Your task to perform on an android device: Open accessibility settings Image 0: 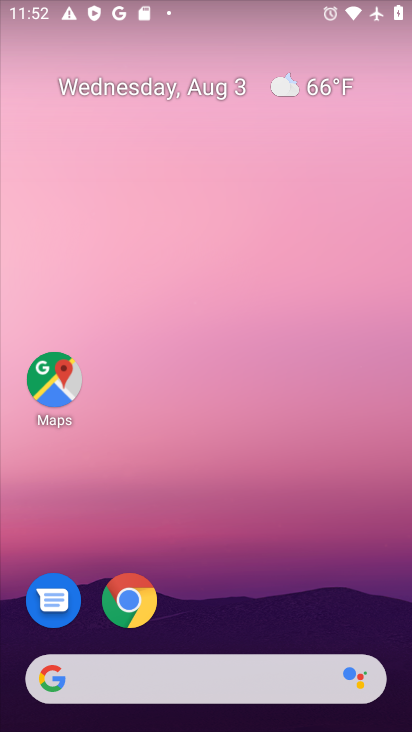
Step 0: drag from (237, 628) to (123, 36)
Your task to perform on an android device: Open accessibility settings Image 1: 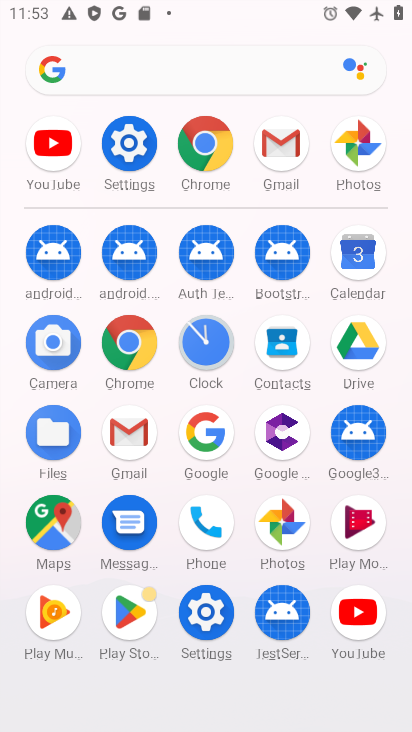
Step 1: click (211, 632)
Your task to perform on an android device: Open accessibility settings Image 2: 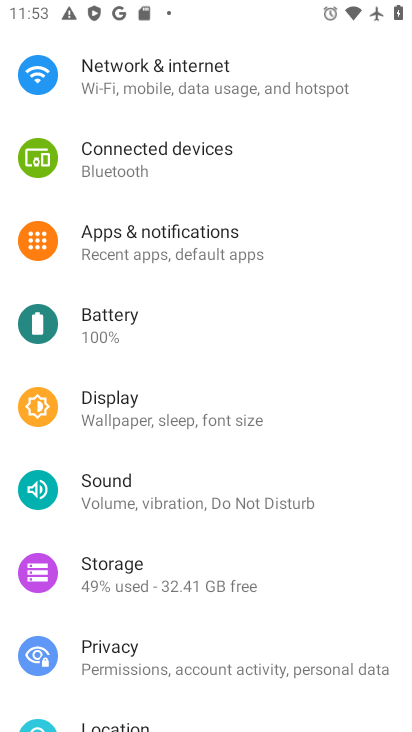
Step 2: drag from (181, 552) to (155, 125)
Your task to perform on an android device: Open accessibility settings Image 3: 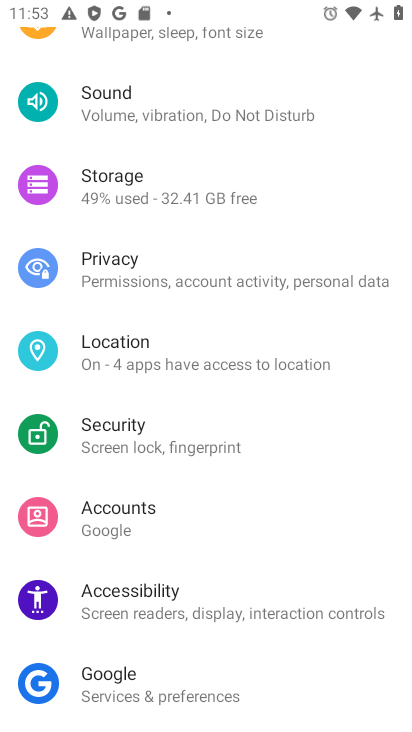
Step 3: click (133, 594)
Your task to perform on an android device: Open accessibility settings Image 4: 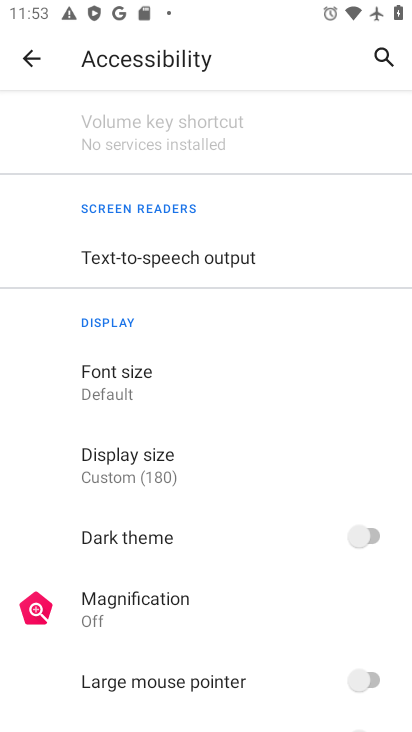
Step 4: task complete